Your task to perform on an android device: make emails show in primary in the gmail app Image 0: 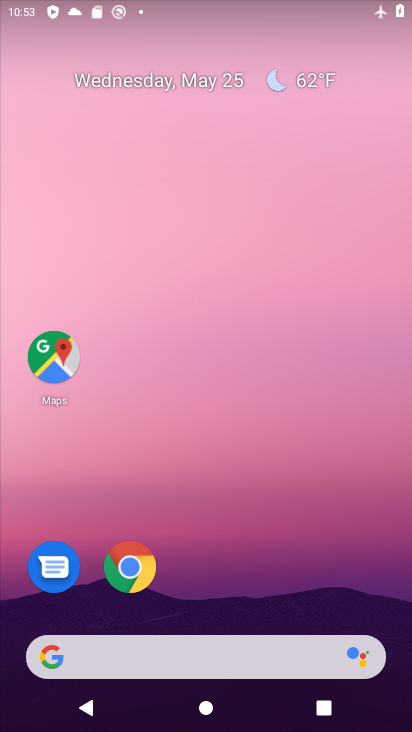
Step 0: drag from (304, 623) to (292, 3)
Your task to perform on an android device: make emails show in primary in the gmail app Image 1: 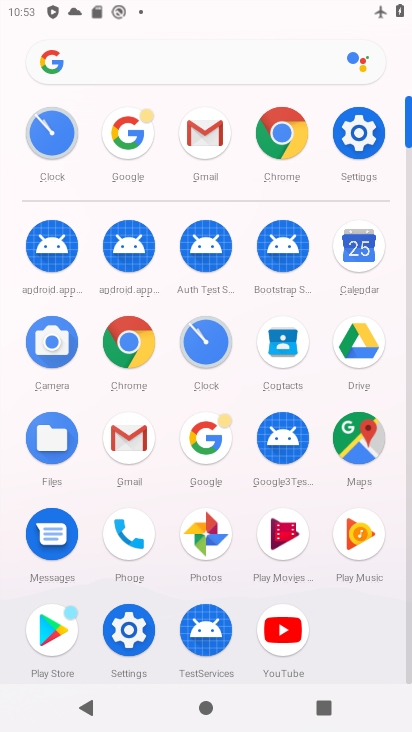
Step 1: click (124, 450)
Your task to perform on an android device: make emails show in primary in the gmail app Image 2: 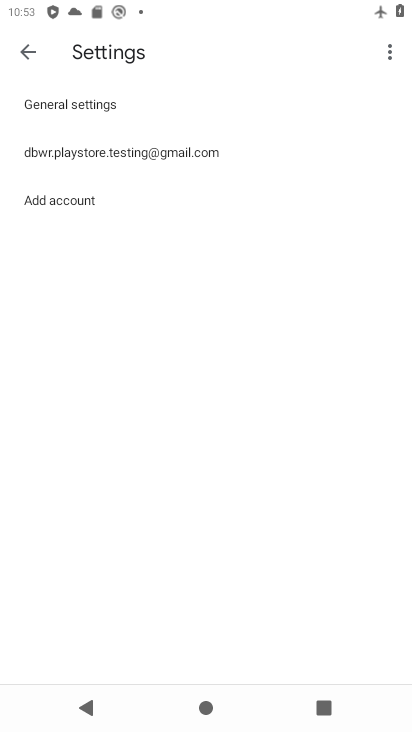
Step 2: task complete